Your task to perform on an android device: Open ESPN.com Image 0: 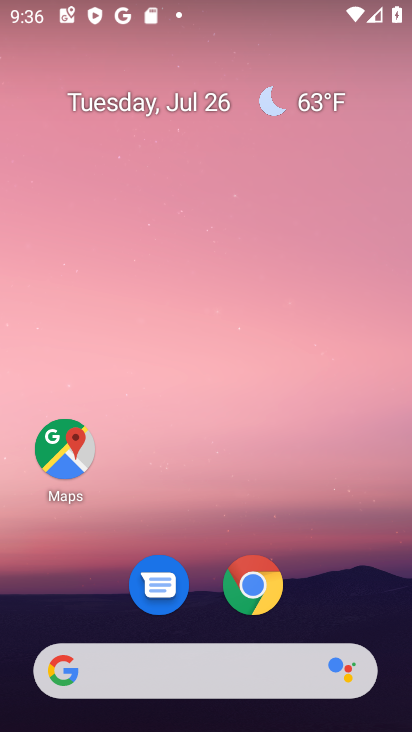
Step 0: drag from (315, 446) to (326, 69)
Your task to perform on an android device: Open ESPN.com Image 1: 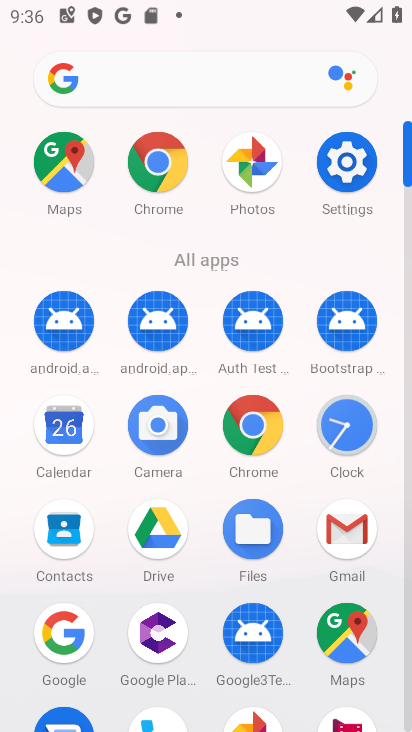
Step 1: press home button
Your task to perform on an android device: Open ESPN.com Image 2: 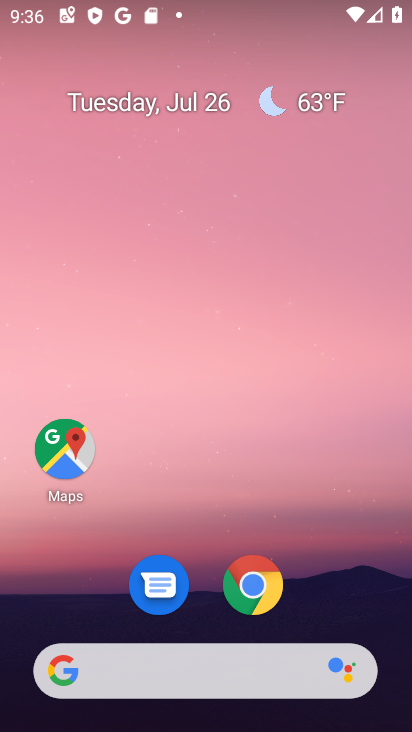
Step 2: click (253, 671)
Your task to perform on an android device: Open ESPN.com Image 3: 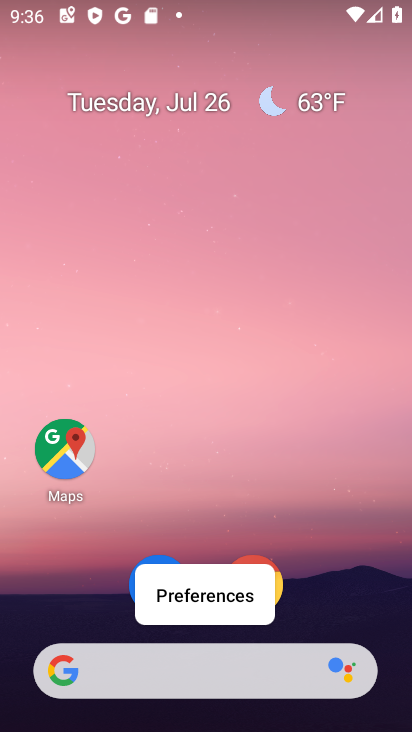
Step 3: click (162, 660)
Your task to perform on an android device: Open ESPN.com Image 4: 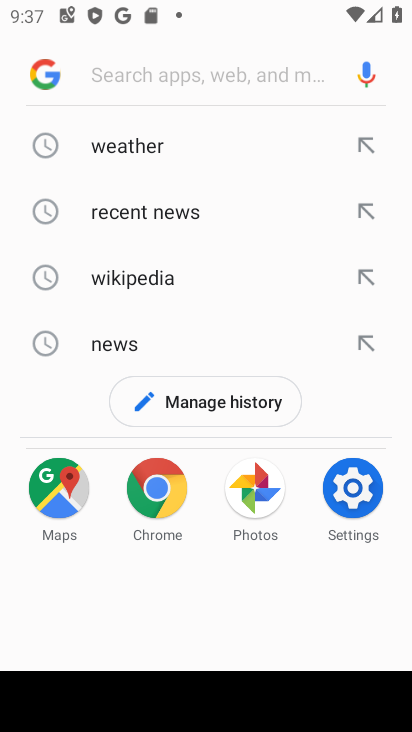
Step 4: type "espn.com"
Your task to perform on an android device: Open ESPN.com Image 5: 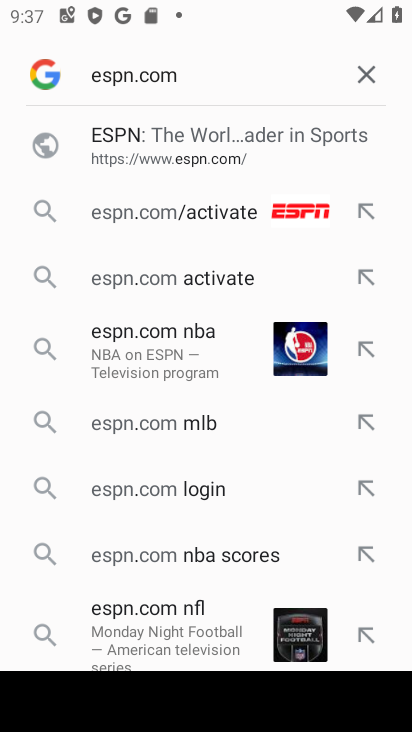
Step 5: click (208, 148)
Your task to perform on an android device: Open ESPN.com Image 6: 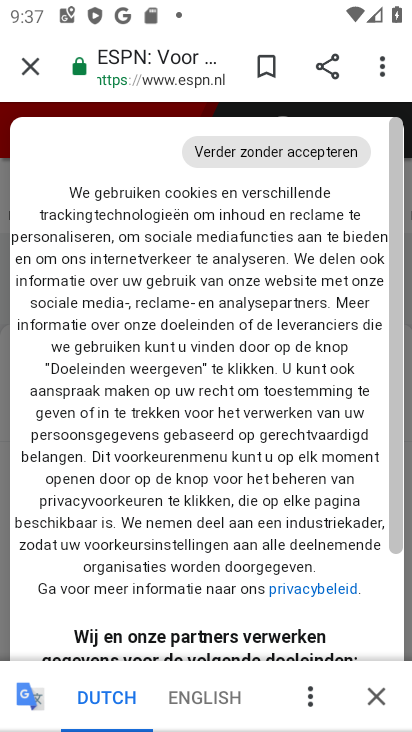
Step 6: click (216, 698)
Your task to perform on an android device: Open ESPN.com Image 7: 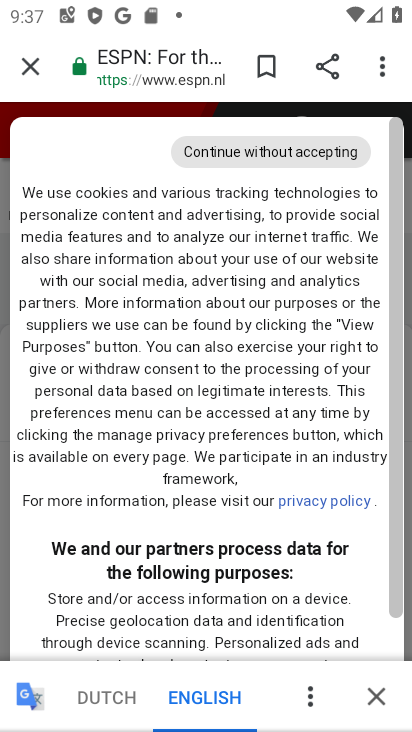
Step 7: click (347, 138)
Your task to perform on an android device: Open ESPN.com Image 8: 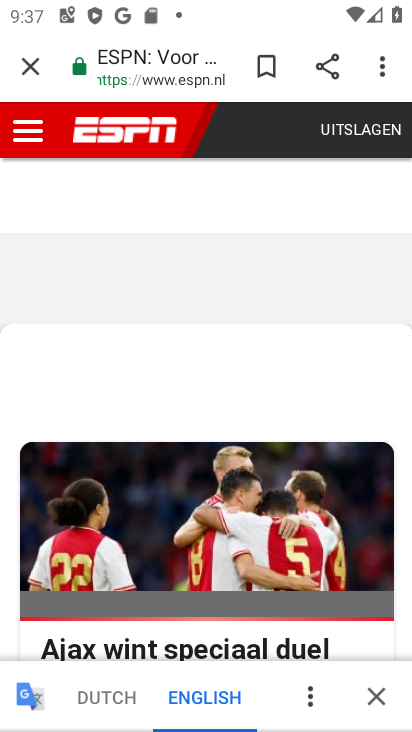
Step 8: task complete